Your task to perform on an android device: check the backup settings in the google photos Image 0: 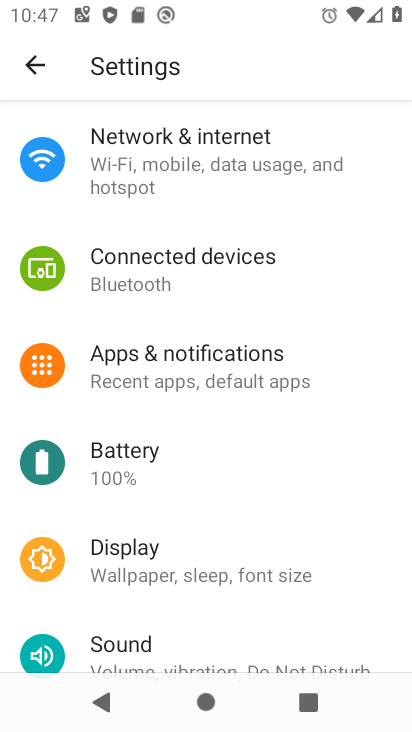
Step 0: press home button
Your task to perform on an android device: check the backup settings in the google photos Image 1: 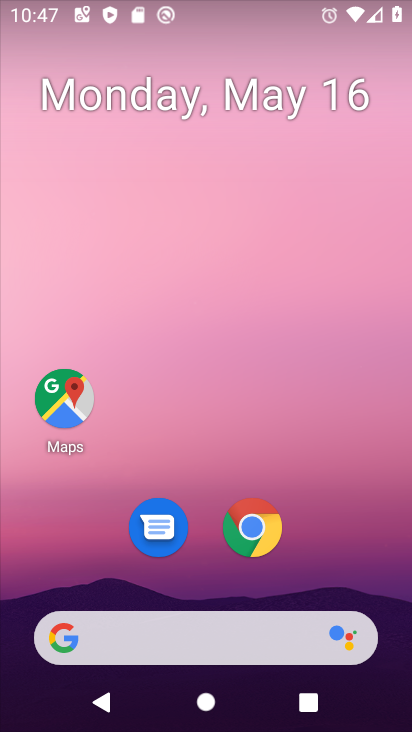
Step 1: drag from (334, 602) to (334, 21)
Your task to perform on an android device: check the backup settings in the google photos Image 2: 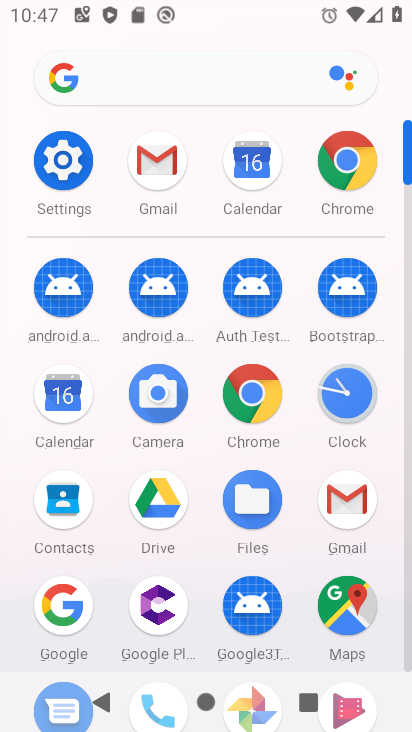
Step 2: click (408, 531)
Your task to perform on an android device: check the backup settings in the google photos Image 3: 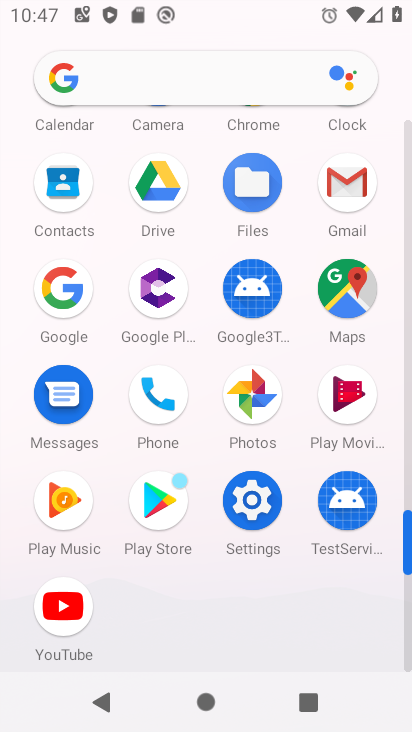
Step 3: click (247, 401)
Your task to perform on an android device: check the backup settings in the google photos Image 4: 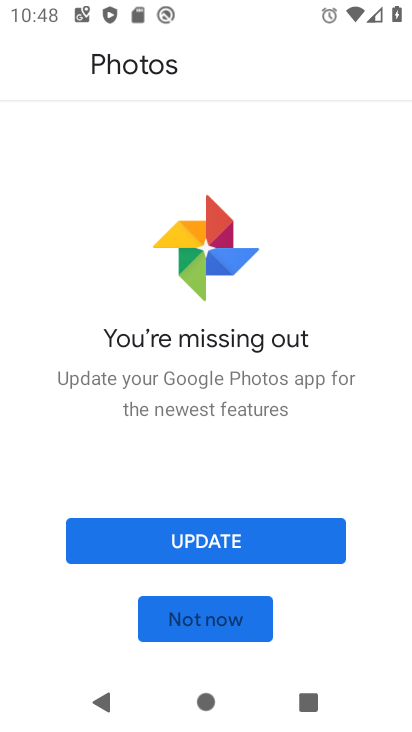
Step 4: click (200, 622)
Your task to perform on an android device: check the backup settings in the google photos Image 5: 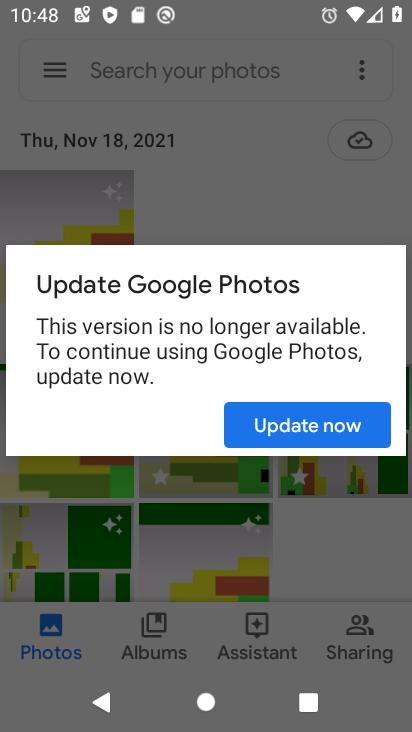
Step 5: click (251, 433)
Your task to perform on an android device: check the backup settings in the google photos Image 6: 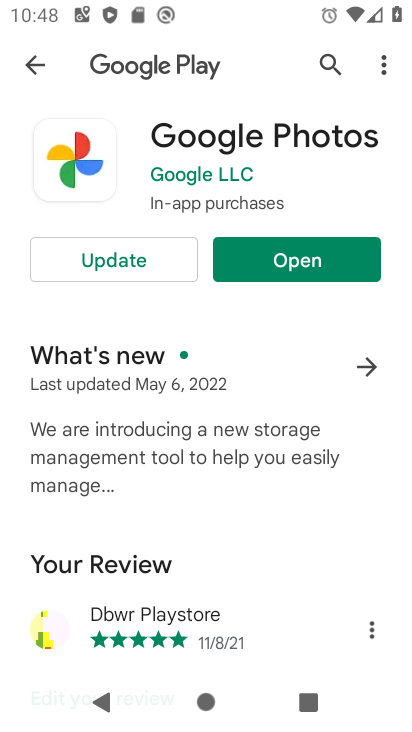
Step 6: click (286, 258)
Your task to perform on an android device: check the backup settings in the google photos Image 7: 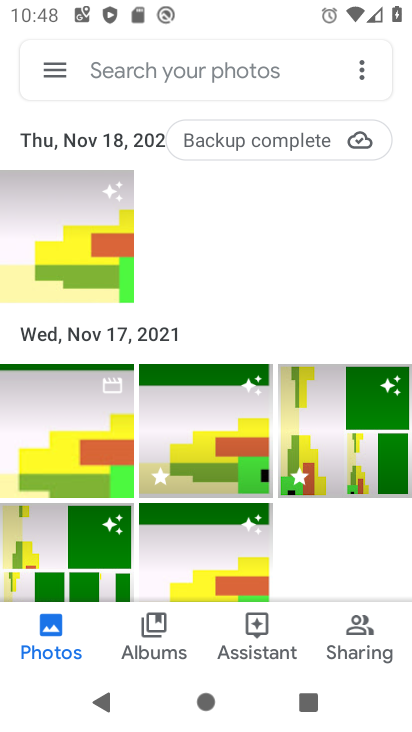
Step 7: click (46, 71)
Your task to perform on an android device: check the backup settings in the google photos Image 8: 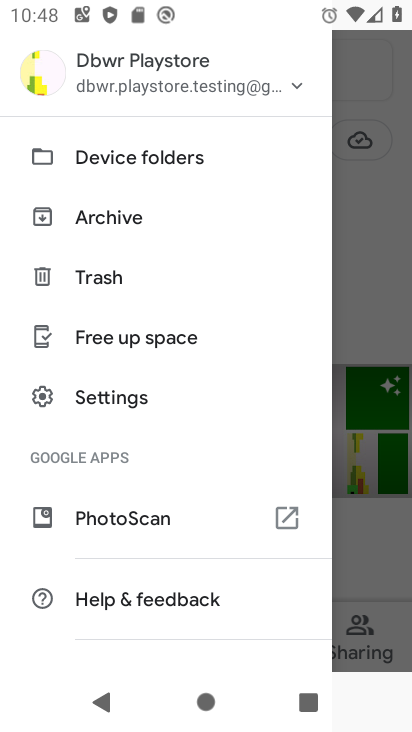
Step 8: click (98, 404)
Your task to perform on an android device: check the backup settings in the google photos Image 9: 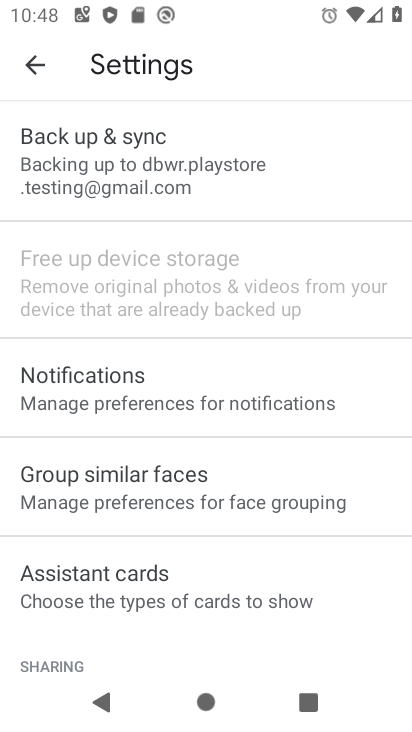
Step 9: click (117, 171)
Your task to perform on an android device: check the backup settings in the google photos Image 10: 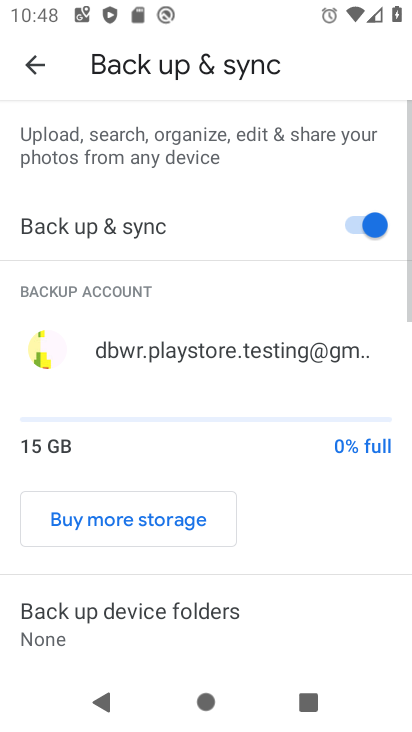
Step 10: task complete